Your task to perform on an android device: Go to eBay Image 0: 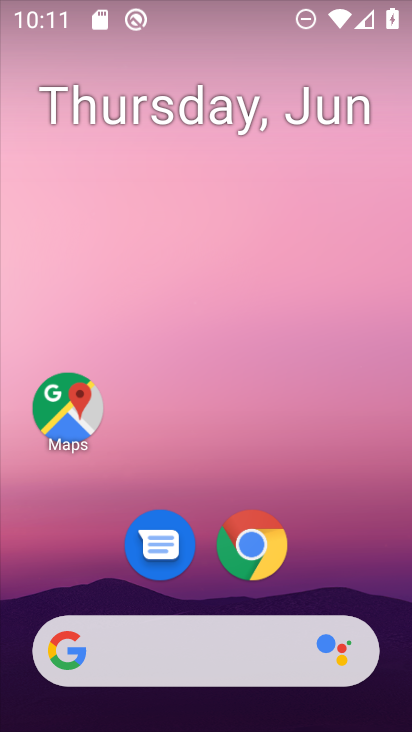
Step 0: click (264, 555)
Your task to perform on an android device: Go to eBay Image 1: 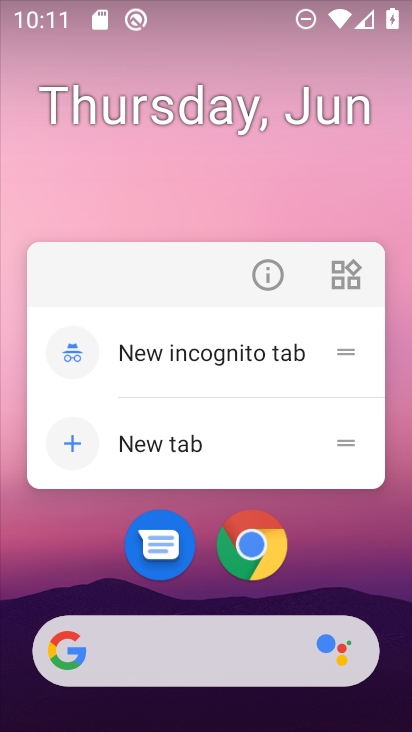
Step 1: click (257, 549)
Your task to perform on an android device: Go to eBay Image 2: 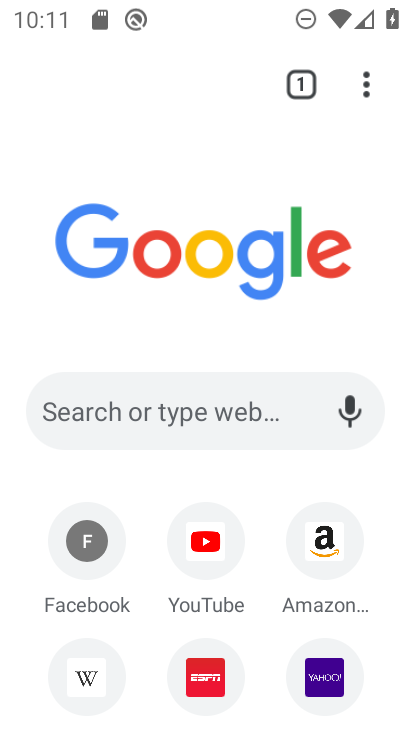
Step 2: click (190, 413)
Your task to perform on an android device: Go to eBay Image 3: 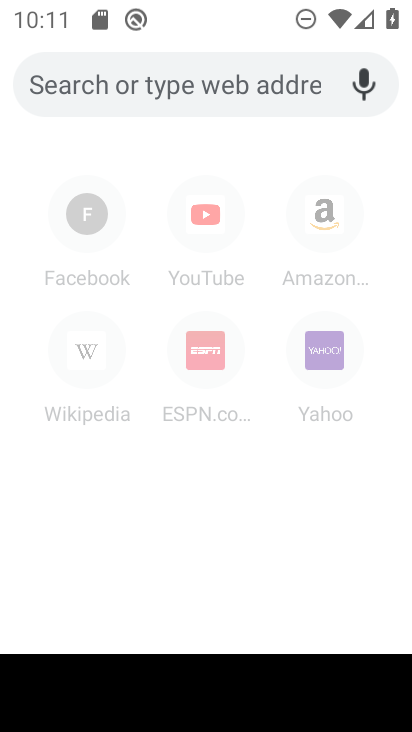
Step 3: type "eBay"
Your task to perform on an android device: Go to eBay Image 4: 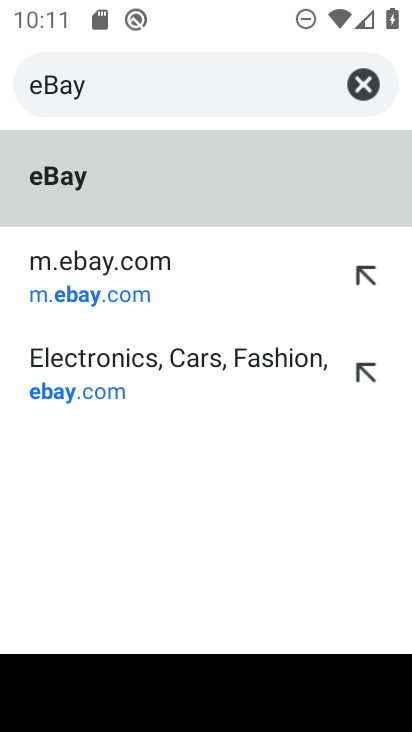
Step 4: click (155, 191)
Your task to perform on an android device: Go to eBay Image 5: 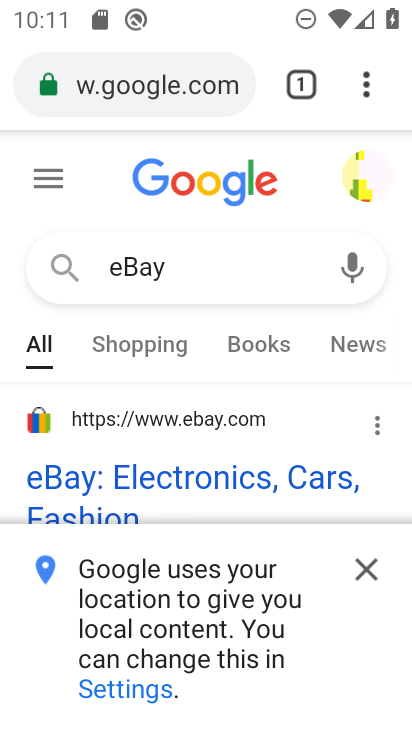
Step 5: click (377, 578)
Your task to perform on an android device: Go to eBay Image 6: 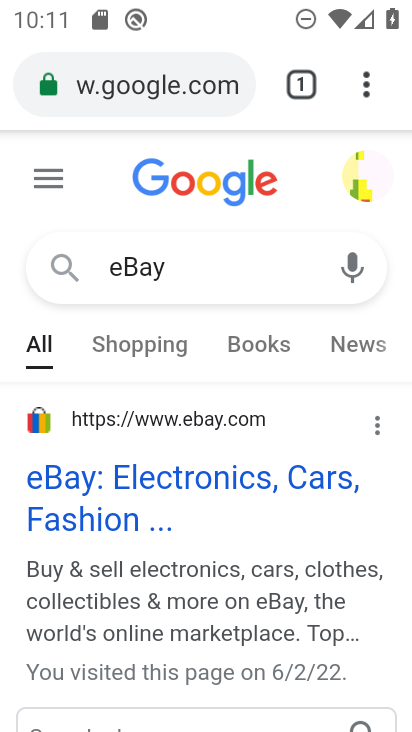
Step 6: task complete